Your task to perform on an android device: Open Amazon Image 0: 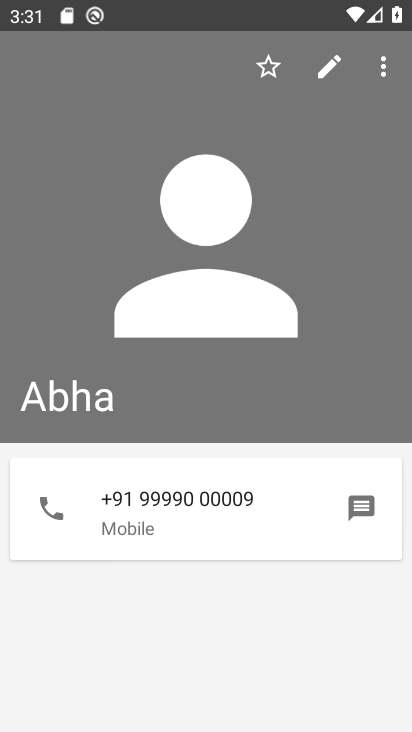
Step 0: press home button
Your task to perform on an android device: Open Amazon Image 1: 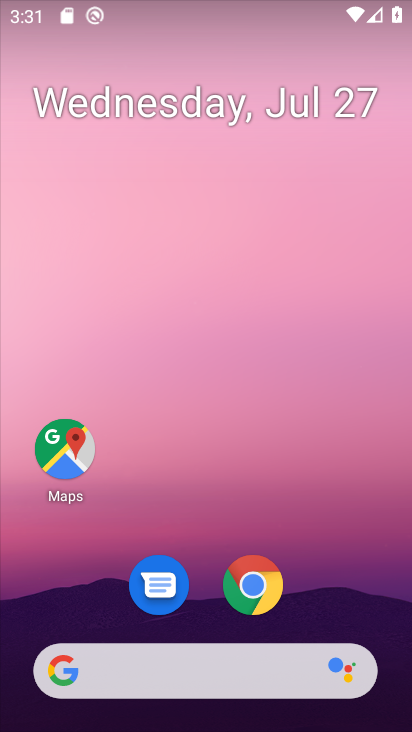
Step 1: click (260, 584)
Your task to perform on an android device: Open Amazon Image 2: 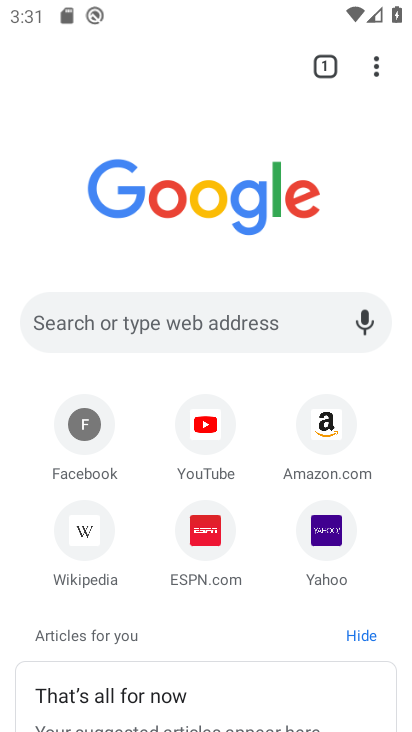
Step 2: click (331, 422)
Your task to perform on an android device: Open Amazon Image 3: 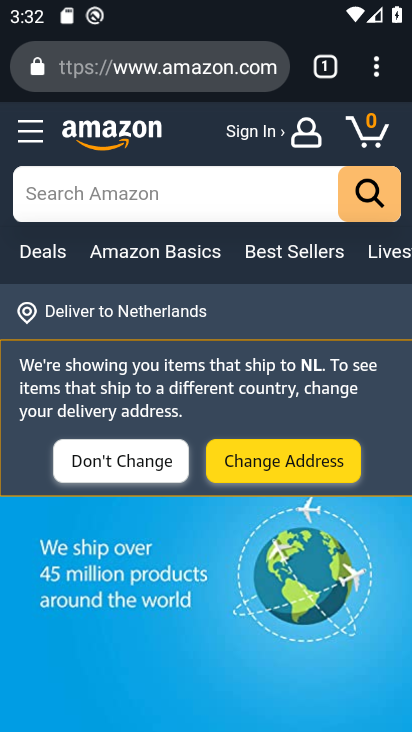
Step 3: task complete